Your task to perform on an android device: toggle sleep mode Image 0: 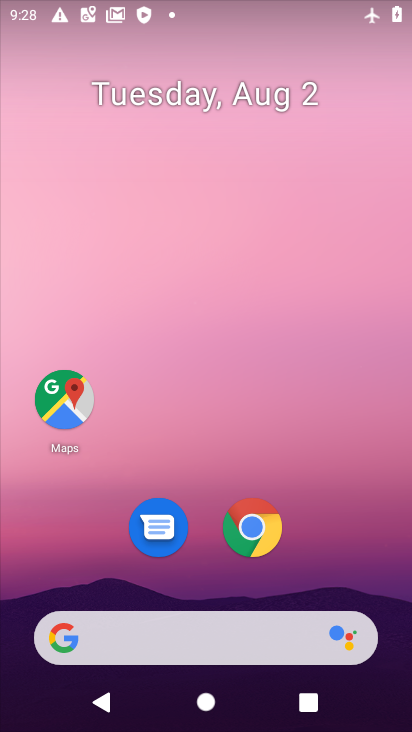
Step 0: drag from (231, 620) to (169, 192)
Your task to perform on an android device: toggle sleep mode Image 1: 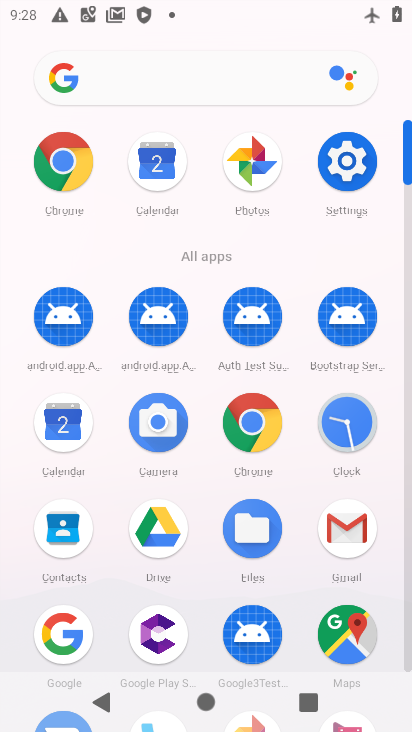
Step 1: click (346, 161)
Your task to perform on an android device: toggle sleep mode Image 2: 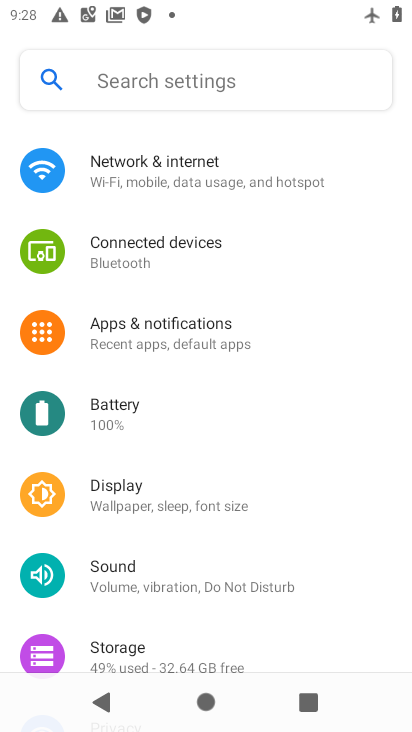
Step 2: click (173, 514)
Your task to perform on an android device: toggle sleep mode Image 3: 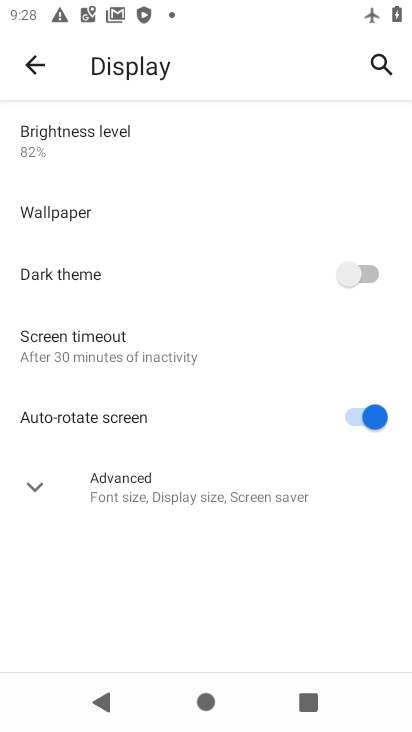
Step 3: click (150, 487)
Your task to perform on an android device: toggle sleep mode Image 4: 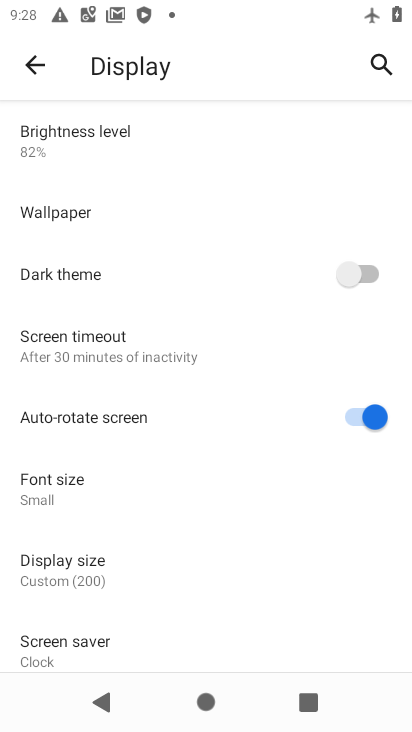
Step 4: click (90, 351)
Your task to perform on an android device: toggle sleep mode Image 5: 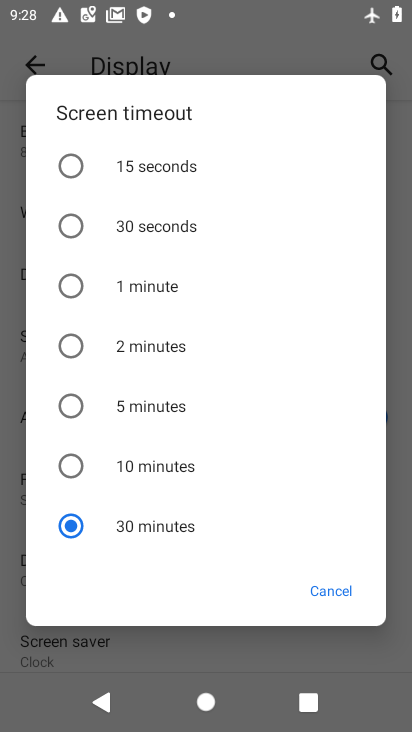
Step 5: click (128, 166)
Your task to perform on an android device: toggle sleep mode Image 6: 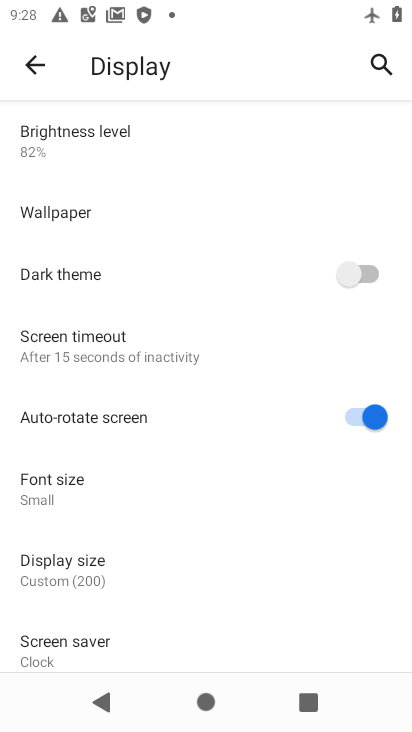
Step 6: task complete